Your task to perform on an android device: Open privacy settings Image 0: 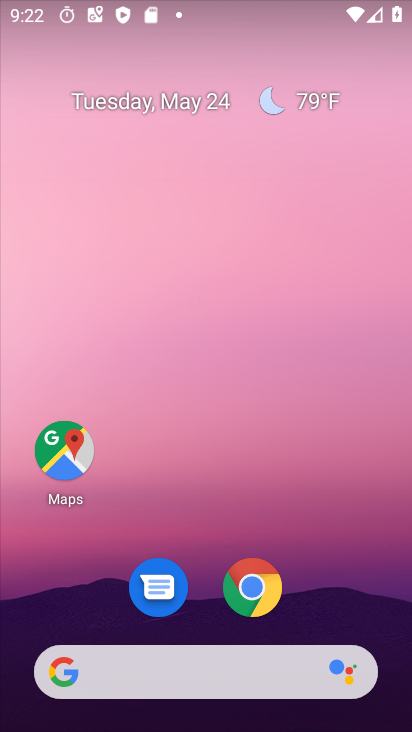
Step 0: drag from (337, 601) to (226, 210)
Your task to perform on an android device: Open privacy settings Image 1: 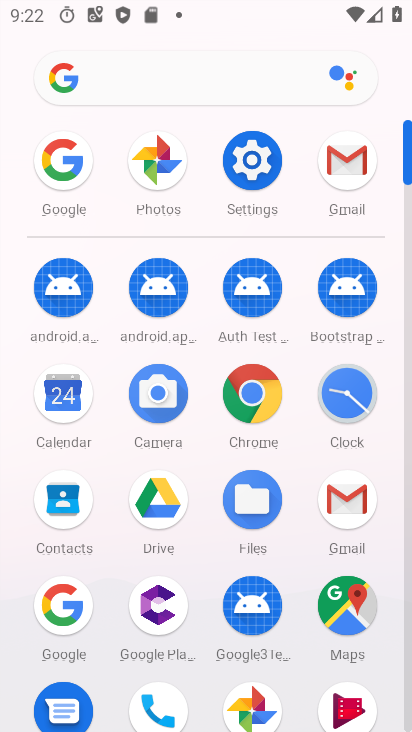
Step 1: click (250, 160)
Your task to perform on an android device: Open privacy settings Image 2: 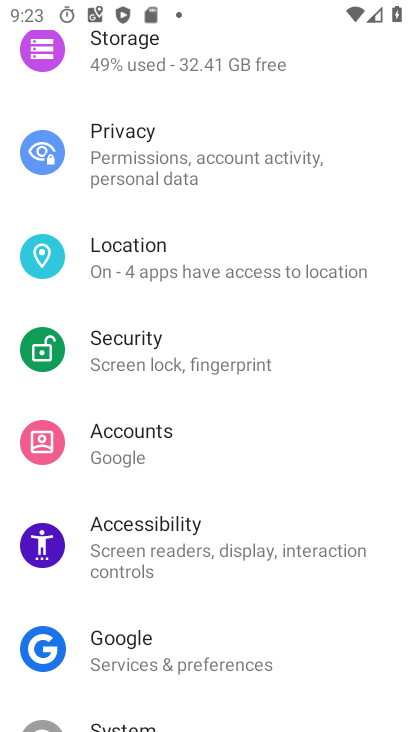
Step 2: click (144, 155)
Your task to perform on an android device: Open privacy settings Image 3: 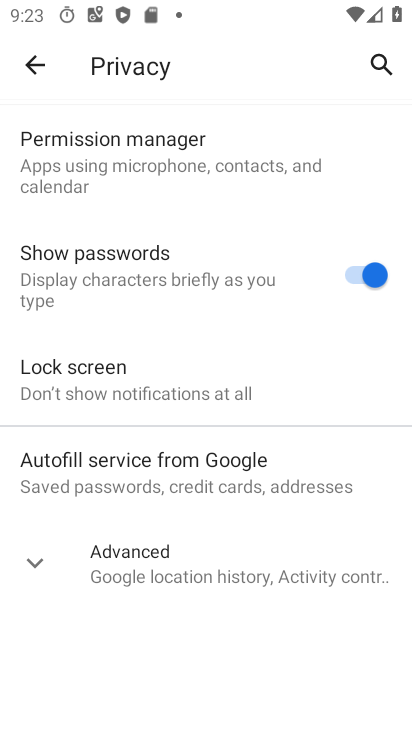
Step 3: task complete